Your task to perform on an android device: open chrome and create a bookmark for the current page Image 0: 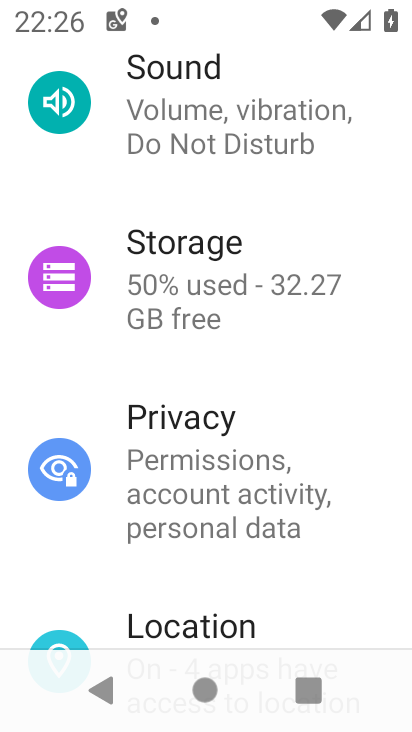
Step 0: press home button
Your task to perform on an android device: open chrome and create a bookmark for the current page Image 1: 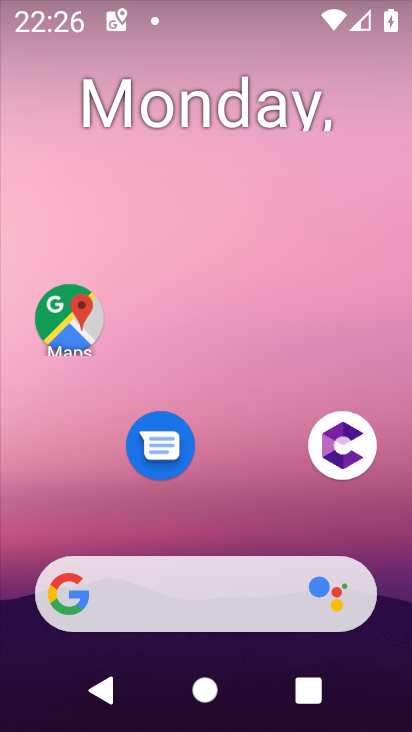
Step 1: drag from (273, 504) to (237, 109)
Your task to perform on an android device: open chrome and create a bookmark for the current page Image 2: 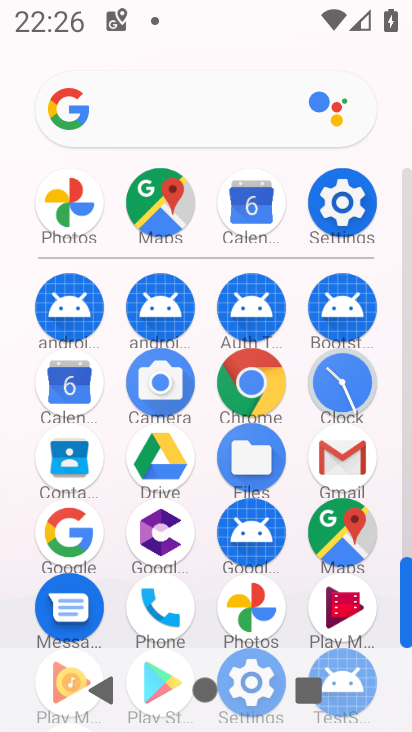
Step 2: click (268, 379)
Your task to perform on an android device: open chrome and create a bookmark for the current page Image 3: 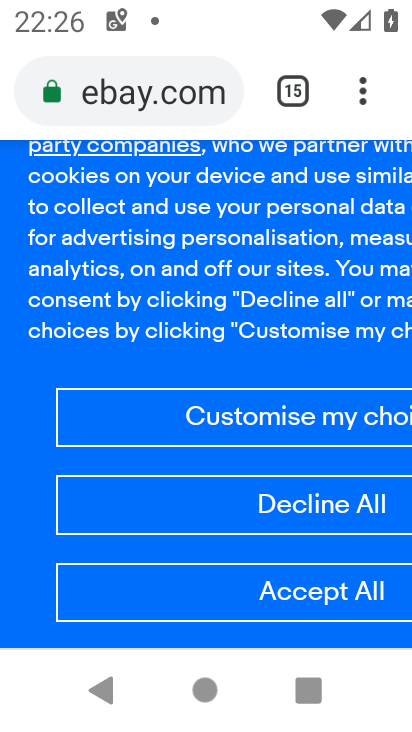
Step 3: task complete